Your task to perform on an android device: check storage Image 0: 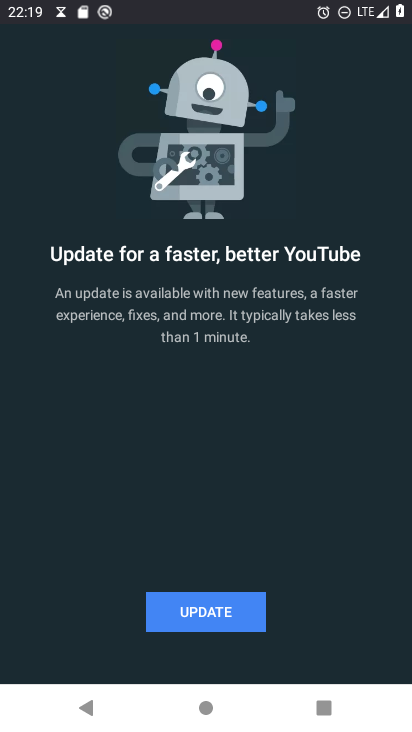
Step 0: press home button
Your task to perform on an android device: check storage Image 1: 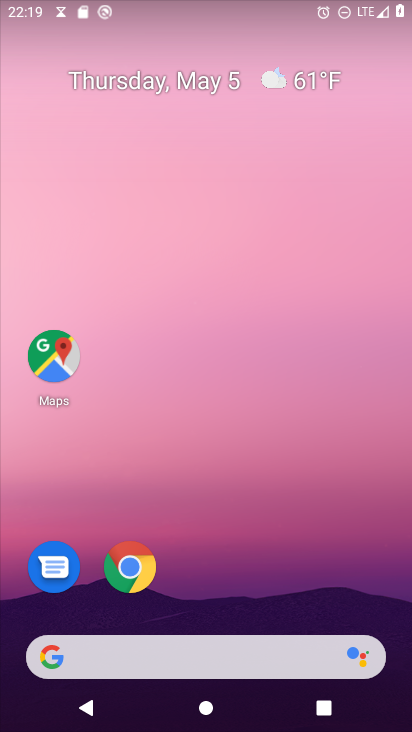
Step 1: drag from (219, 725) to (216, 193)
Your task to perform on an android device: check storage Image 2: 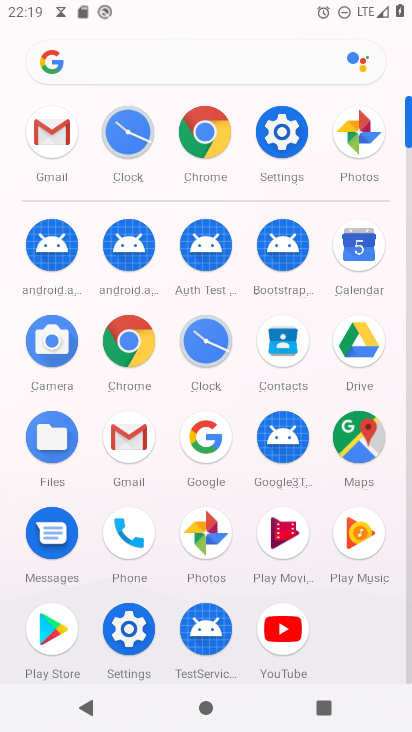
Step 2: click (277, 134)
Your task to perform on an android device: check storage Image 3: 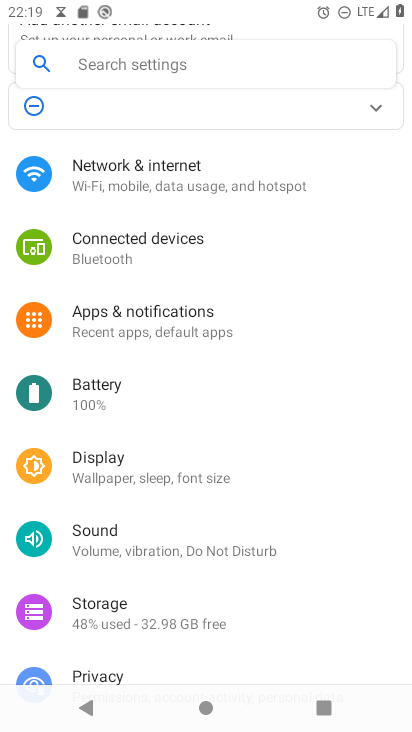
Step 3: drag from (168, 668) to (168, 256)
Your task to perform on an android device: check storage Image 4: 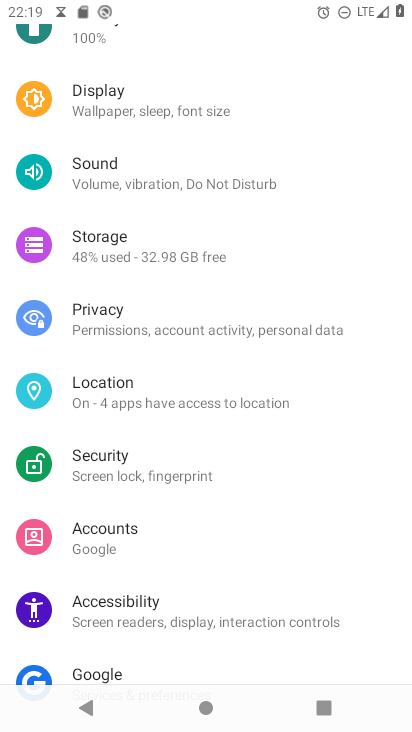
Step 4: drag from (137, 652) to (141, 224)
Your task to perform on an android device: check storage Image 5: 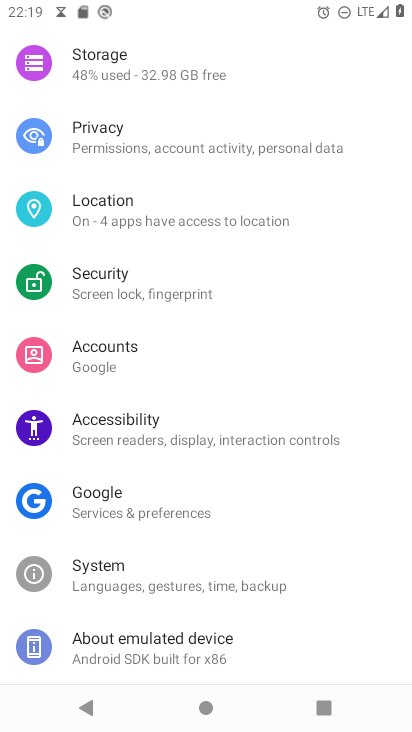
Step 5: click (107, 65)
Your task to perform on an android device: check storage Image 6: 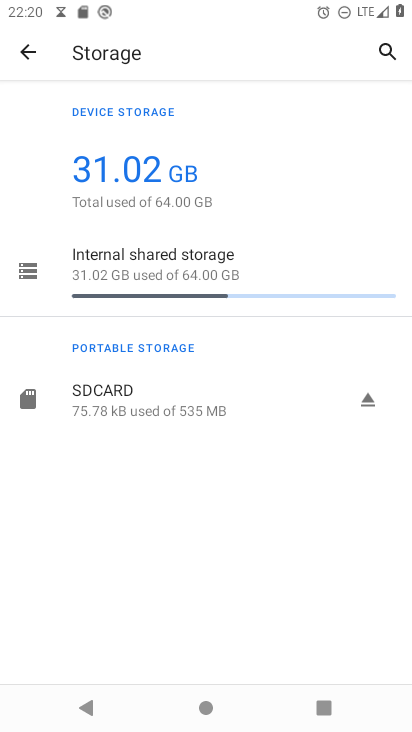
Step 6: task complete